Your task to perform on an android device: Open Chrome and go to the settings page Image 0: 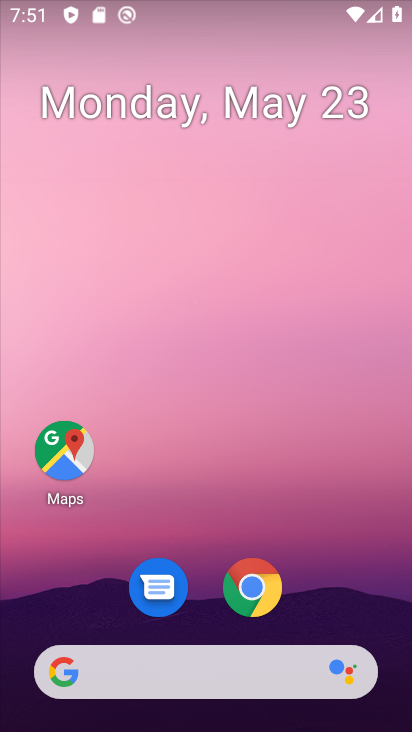
Step 0: click (250, 583)
Your task to perform on an android device: Open Chrome and go to the settings page Image 1: 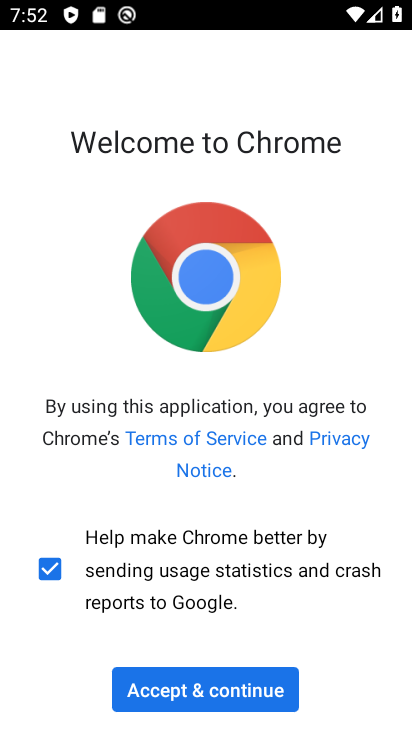
Step 1: click (224, 691)
Your task to perform on an android device: Open Chrome and go to the settings page Image 2: 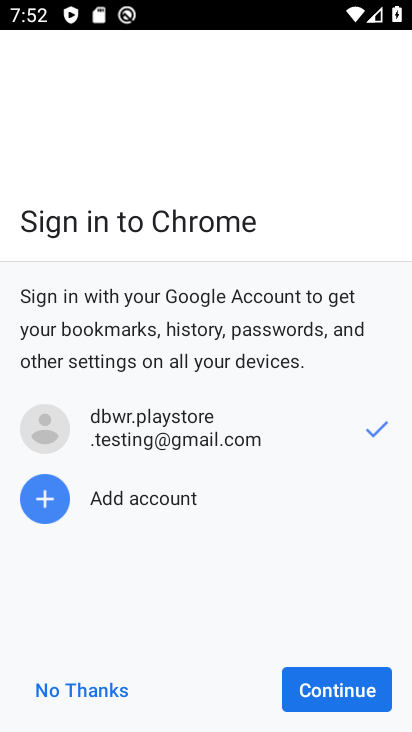
Step 2: click (325, 684)
Your task to perform on an android device: Open Chrome and go to the settings page Image 3: 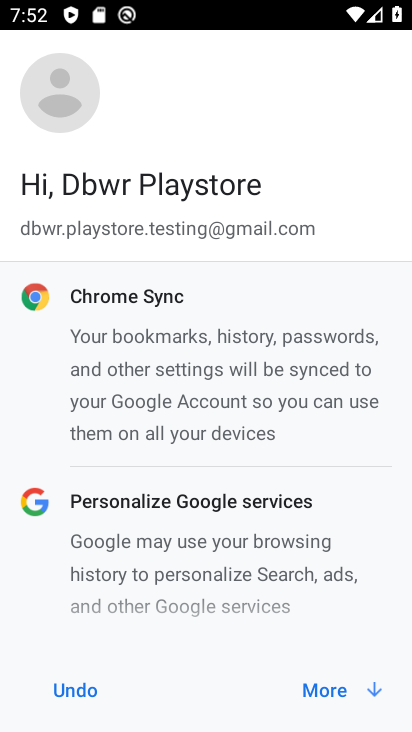
Step 3: click (300, 688)
Your task to perform on an android device: Open Chrome and go to the settings page Image 4: 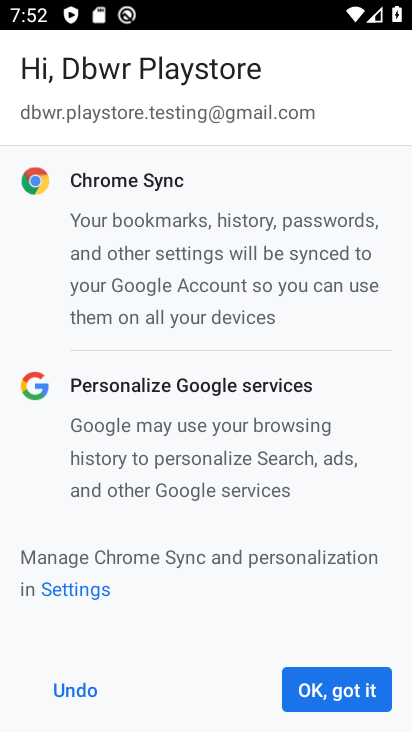
Step 4: click (308, 689)
Your task to perform on an android device: Open Chrome and go to the settings page Image 5: 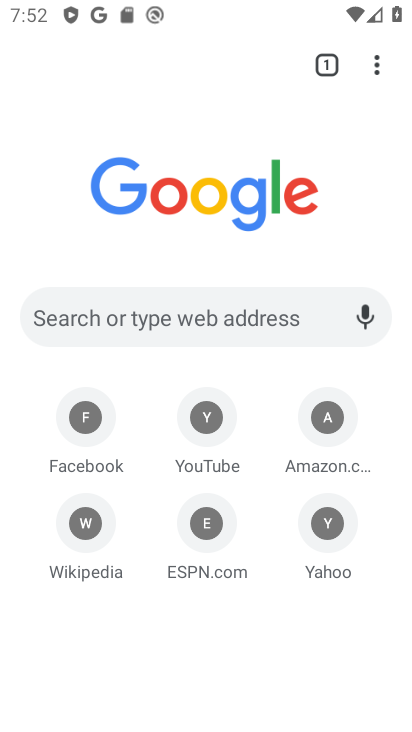
Step 5: task complete